Your task to perform on an android device: Open Amazon Image 0: 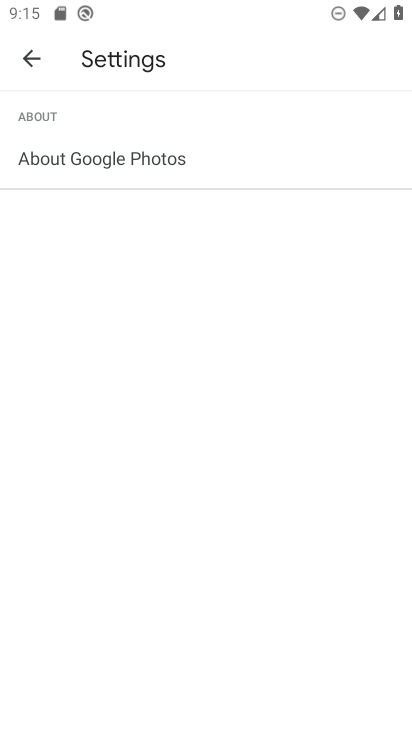
Step 0: press home button
Your task to perform on an android device: Open Amazon Image 1: 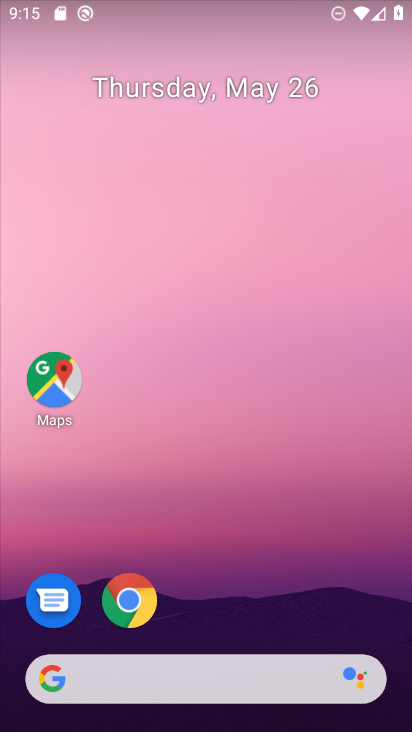
Step 1: drag from (127, 637) to (171, 333)
Your task to perform on an android device: Open Amazon Image 2: 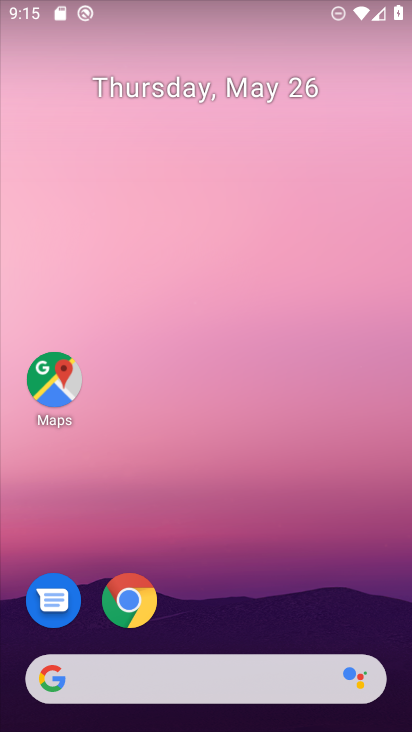
Step 2: click (140, 605)
Your task to perform on an android device: Open Amazon Image 3: 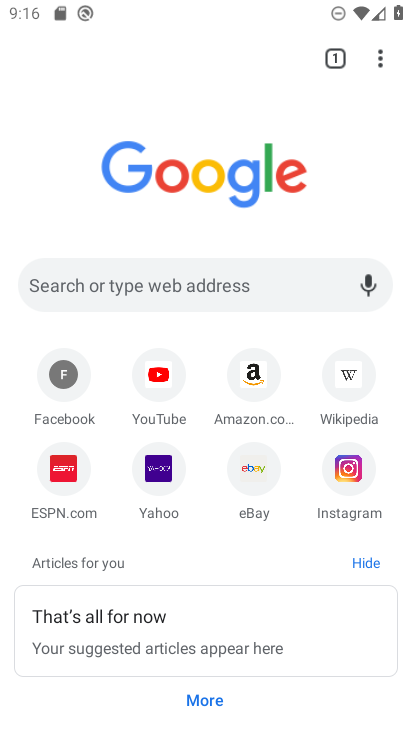
Step 3: click (237, 372)
Your task to perform on an android device: Open Amazon Image 4: 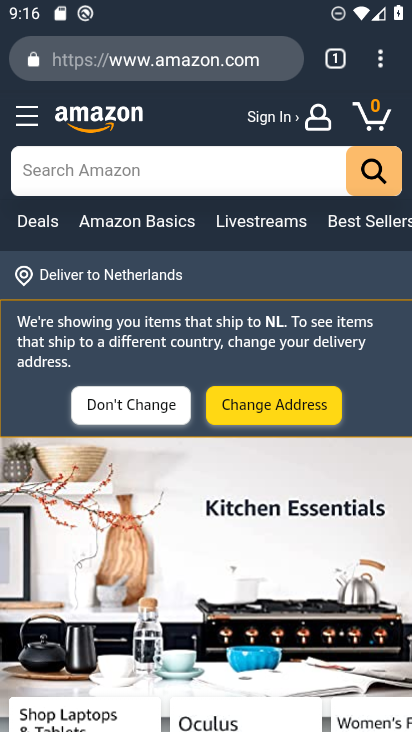
Step 4: task complete